Your task to perform on an android device: Go to Android settings Image 0: 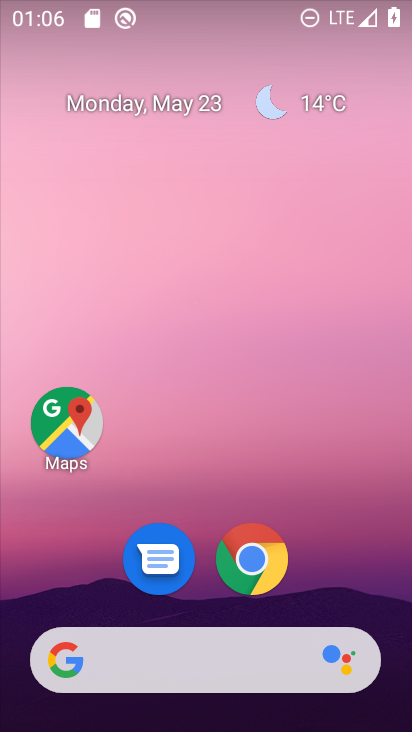
Step 0: drag from (347, 618) to (359, 6)
Your task to perform on an android device: Go to Android settings Image 1: 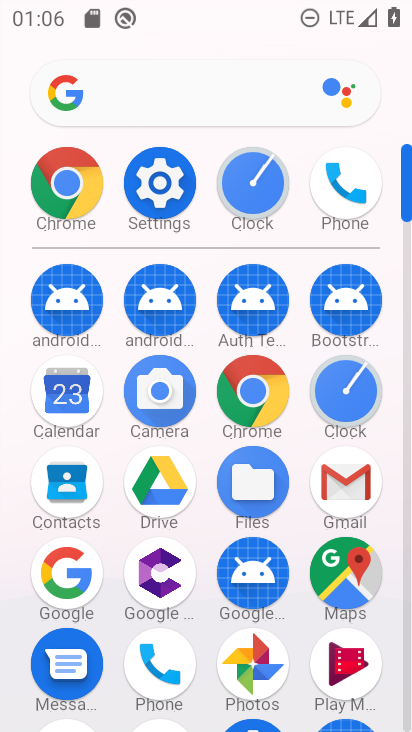
Step 1: click (154, 183)
Your task to perform on an android device: Go to Android settings Image 2: 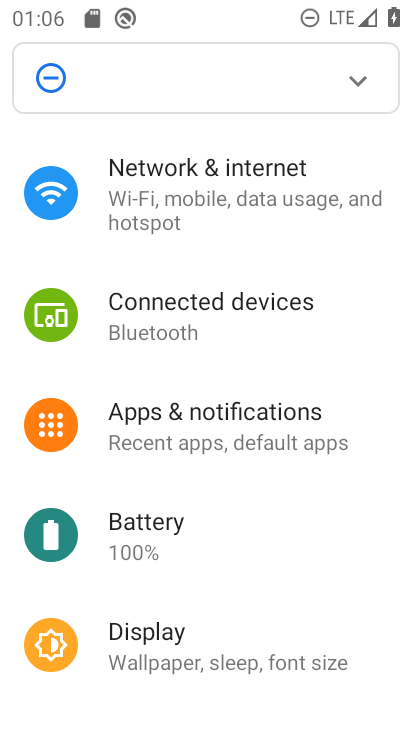
Step 2: task complete